Your task to perform on an android device: remove spam from my inbox in the gmail app Image 0: 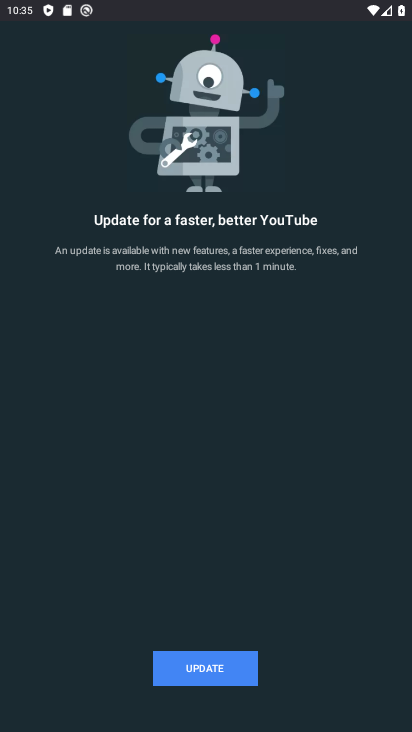
Step 0: press home button
Your task to perform on an android device: remove spam from my inbox in the gmail app Image 1: 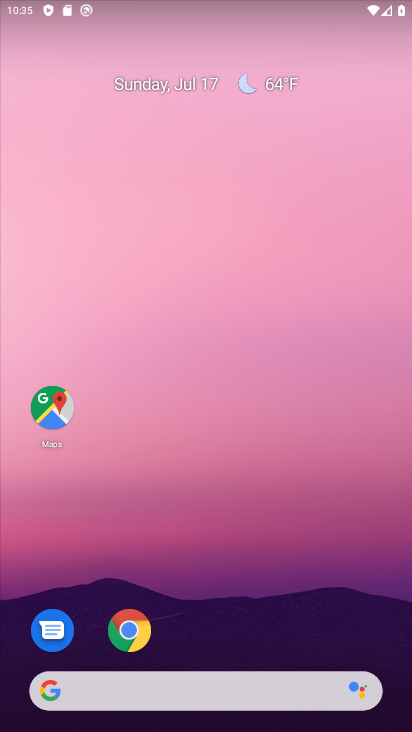
Step 1: drag from (401, 641) to (309, 214)
Your task to perform on an android device: remove spam from my inbox in the gmail app Image 2: 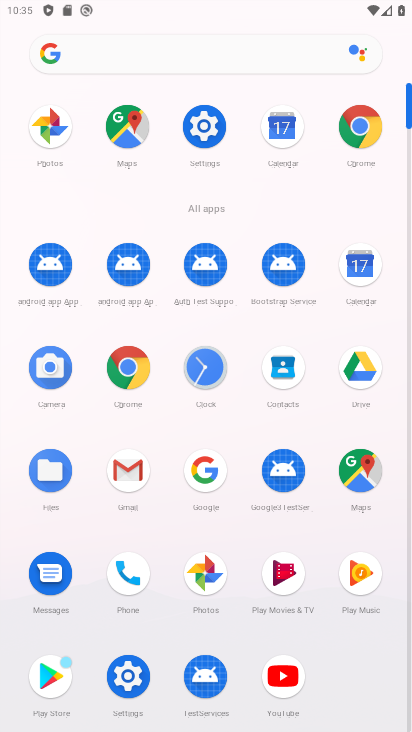
Step 2: click (128, 466)
Your task to perform on an android device: remove spam from my inbox in the gmail app Image 3: 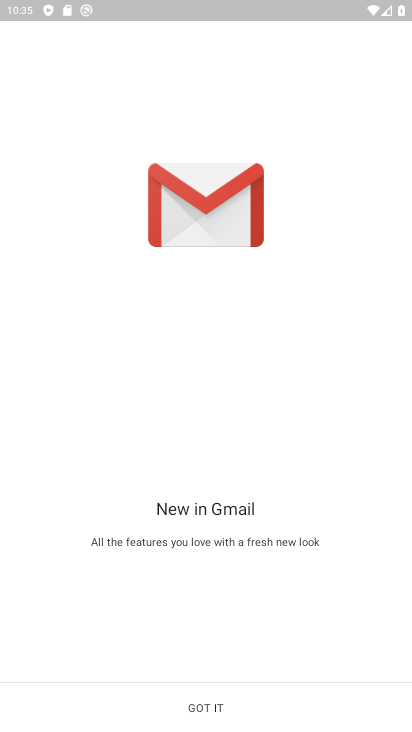
Step 3: click (204, 708)
Your task to perform on an android device: remove spam from my inbox in the gmail app Image 4: 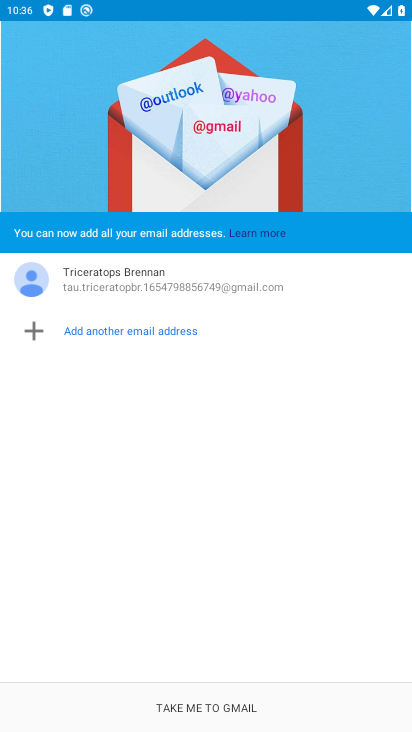
Step 4: click (229, 702)
Your task to perform on an android device: remove spam from my inbox in the gmail app Image 5: 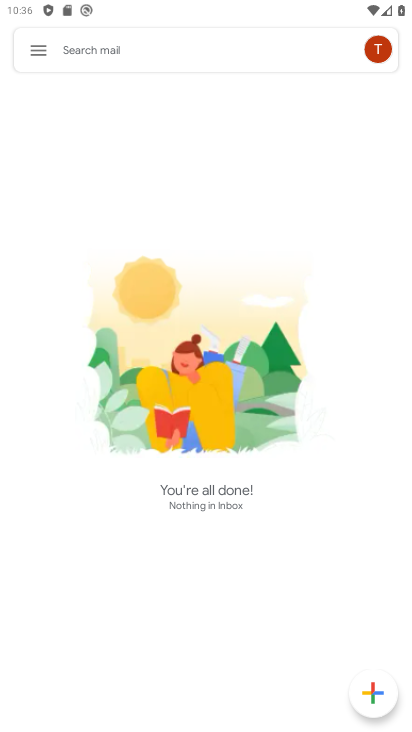
Step 5: click (45, 50)
Your task to perform on an android device: remove spam from my inbox in the gmail app Image 6: 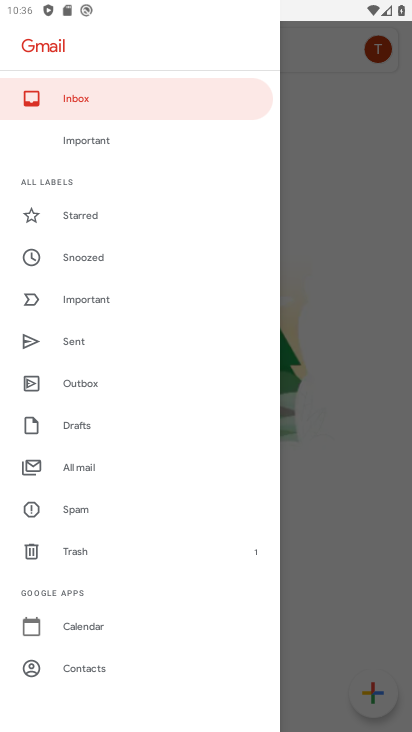
Step 6: drag from (127, 609) to (132, 400)
Your task to perform on an android device: remove spam from my inbox in the gmail app Image 7: 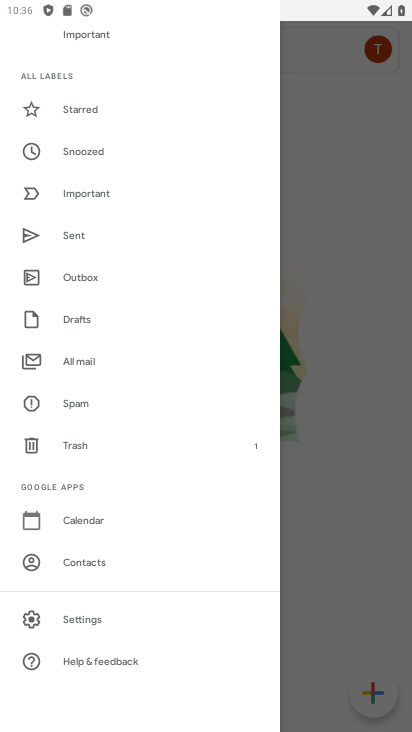
Step 7: click (70, 401)
Your task to perform on an android device: remove spam from my inbox in the gmail app Image 8: 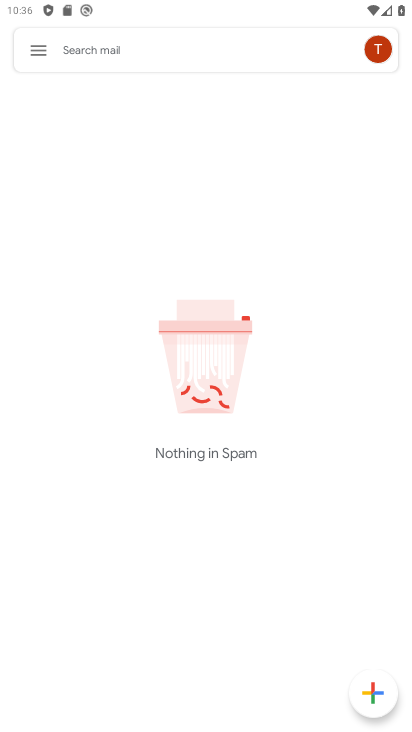
Step 8: task complete